Your task to perform on an android device: turn on location history Image 0: 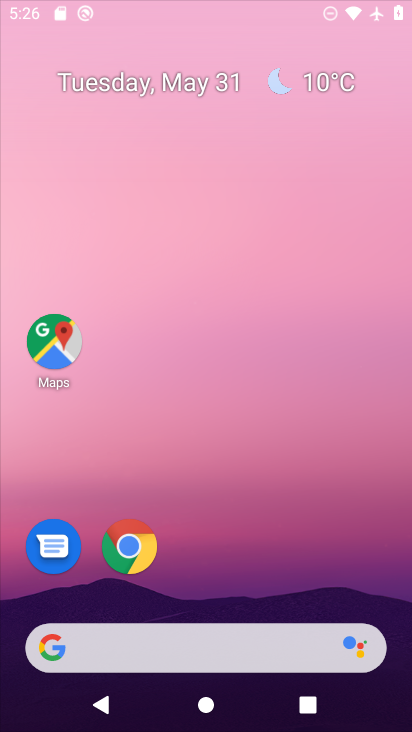
Step 0: drag from (259, 559) to (159, 127)
Your task to perform on an android device: turn on location history Image 1: 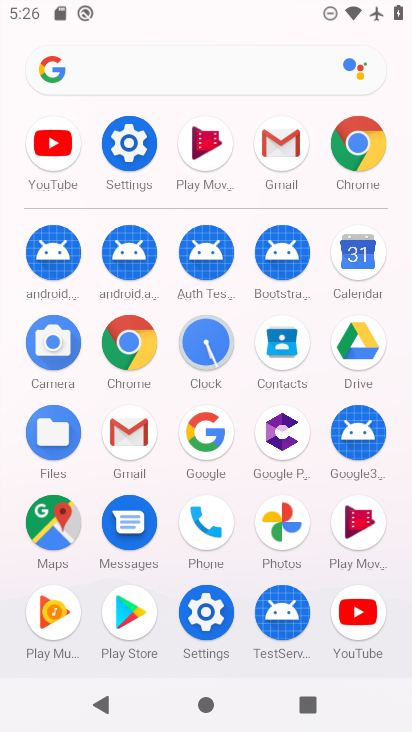
Step 1: click (126, 134)
Your task to perform on an android device: turn on location history Image 2: 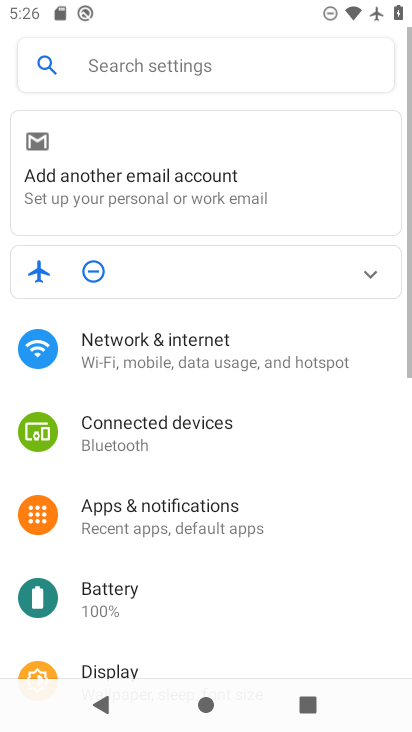
Step 2: drag from (260, 388) to (254, 24)
Your task to perform on an android device: turn on location history Image 3: 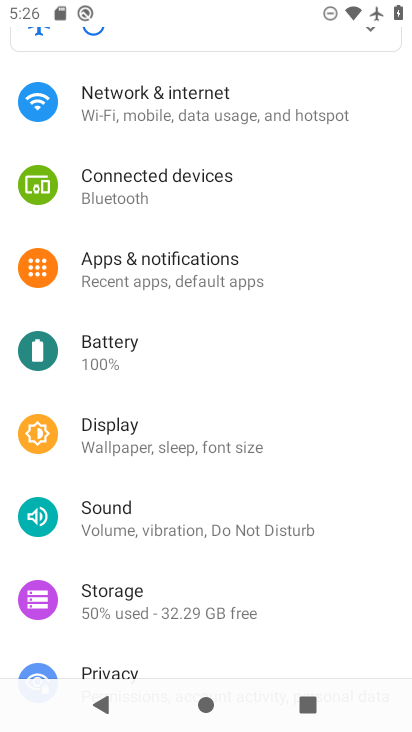
Step 3: drag from (264, 603) to (246, 118)
Your task to perform on an android device: turn on location history Image 4: 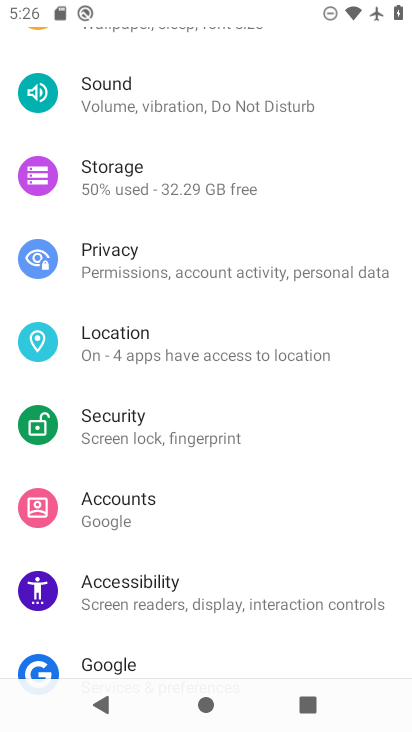
Step 4: click (177, 345)
Your task to perform on an android device: turn on location history Image 5: 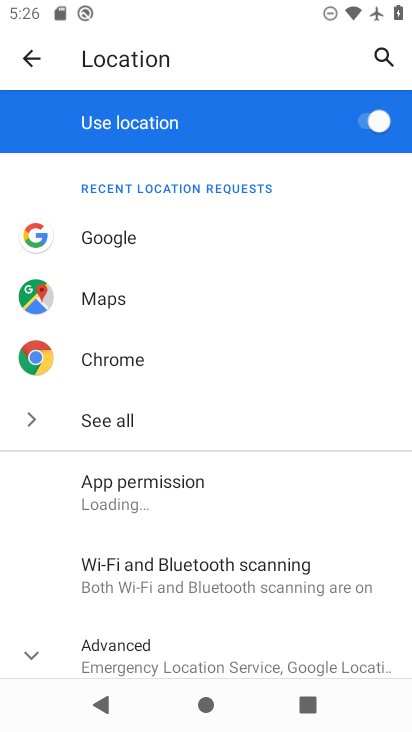
Step 5: task complete